Your task to perform on an android device: find photos in the google photos app Image 0: 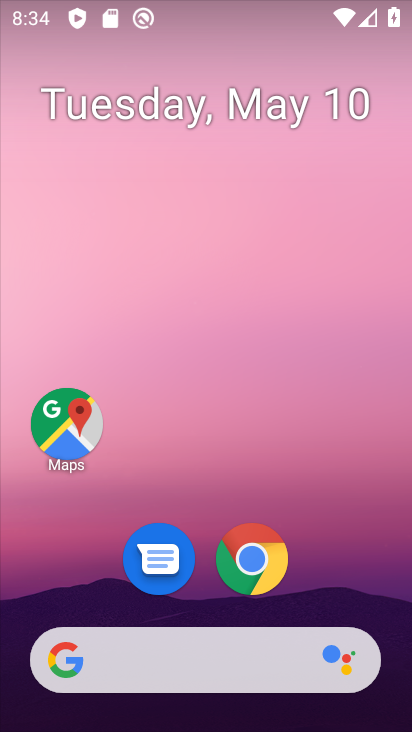
Step 0: drag from (352, 527) to (214, 132)
Your task to perform on an android device: find photos in the google photos app Image 1: 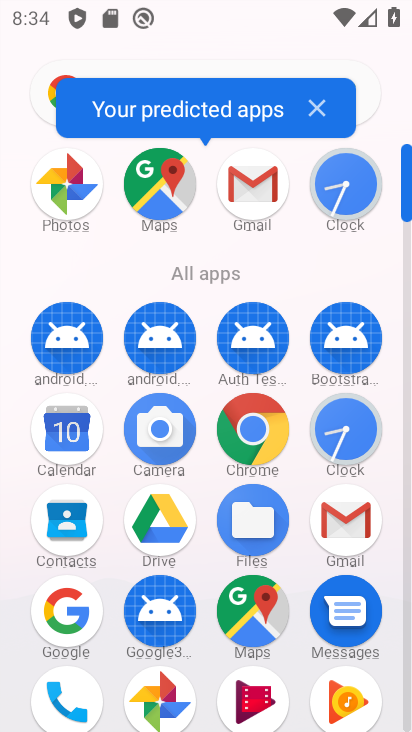
Step 1: drag from (280, 389) to (205, 155)
Your task to perform on an android device: find photos in the google photos app Image 2: 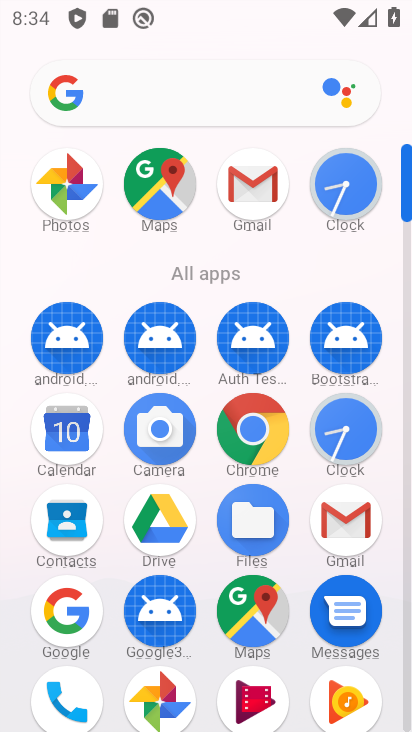
Step 2: click (160, 696)
Your task to perform on an android device: find photos in the google photos app Image 3: 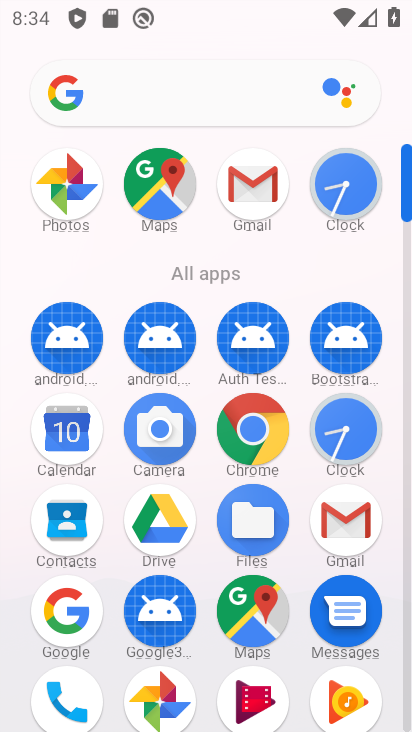
Step 3: click (164, 700)
Your task to perform on an android device: find photos in the google photos app Image 4: 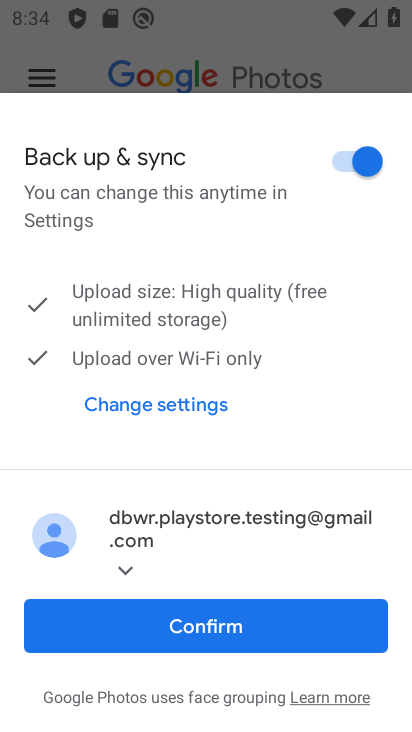
Step 4: click (229, 621)
Your task to perform on an android device: find photos in the google photos app Image 5: 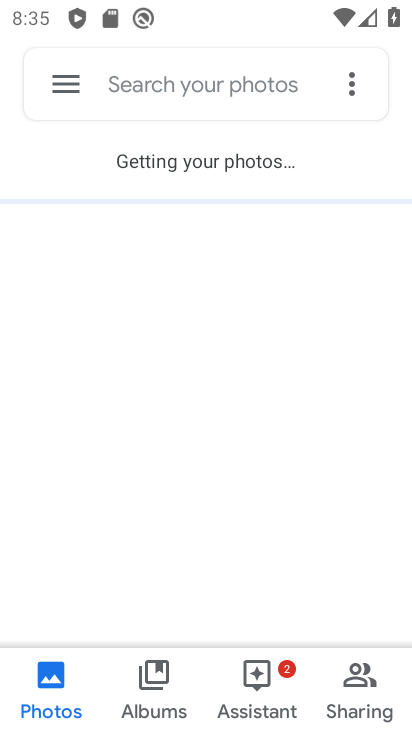
Step 5: click (106, 345)
Your task to perform on an android device: find photos in the google photos app Image 6: 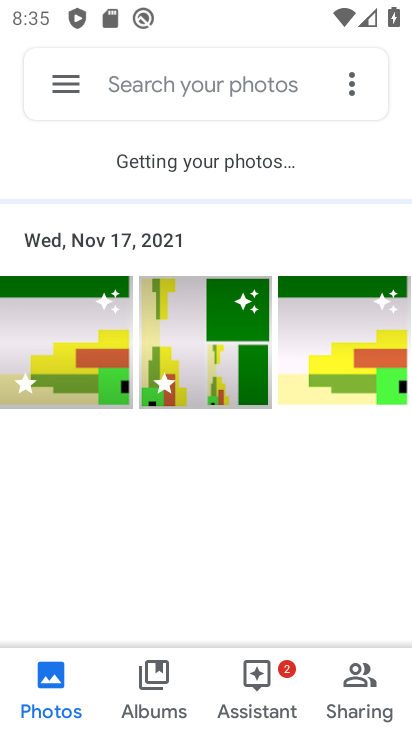
Step 6: task complete